Your task to perform on an android device: change timer sound Image 0: 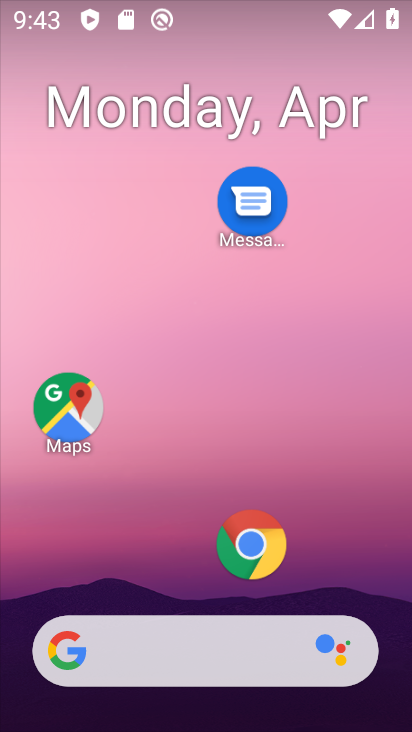
Step 0: drag from (199, 578) to (220, 29)
Your task to perform on an android device: change timer sound Image 1: 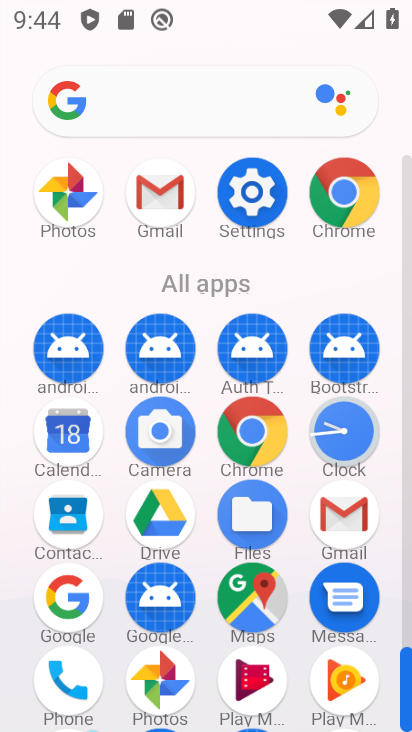
Step 1: click (340, 427)
Your task to perform on an android device: change timer sound Image 2: 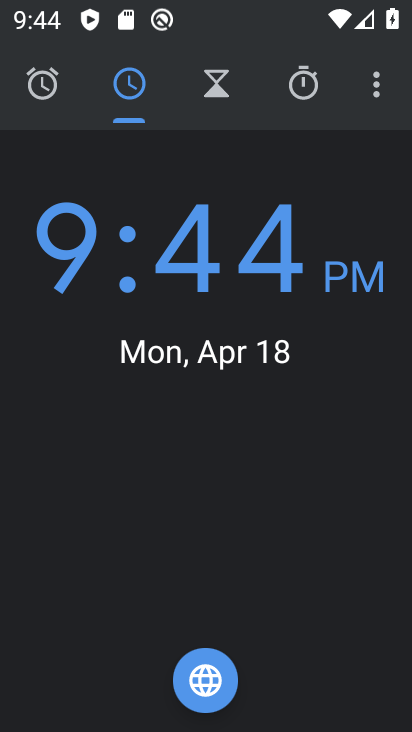
Step 2: click (372, 83)
Your task to perform on an android device: change timer sound Image 3: 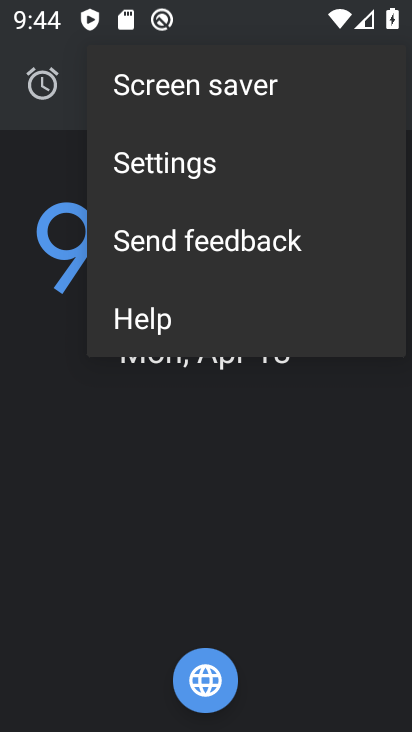
Step 3: click (193, 158)
Your task to perform on an android device: change timer sound Image 4: 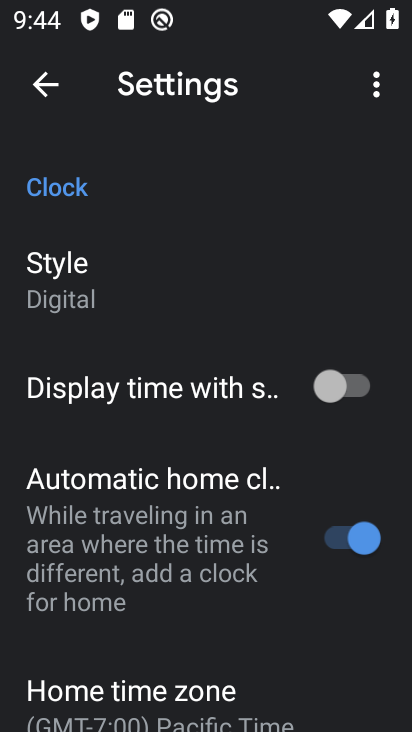
Step 4: drag from (190, 648) to (191, 154)
Your task to perform on an android device: change timer sound Image 5: 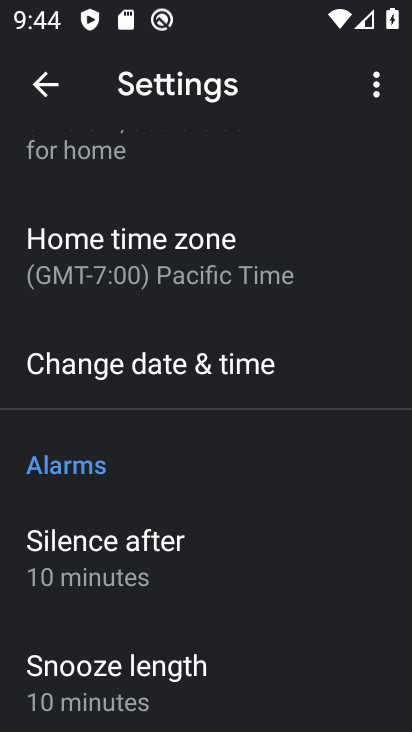
Step 5: drag from (179, 625) to (213, 110)
Your task to perform on an android device: change timer sound Image 6: 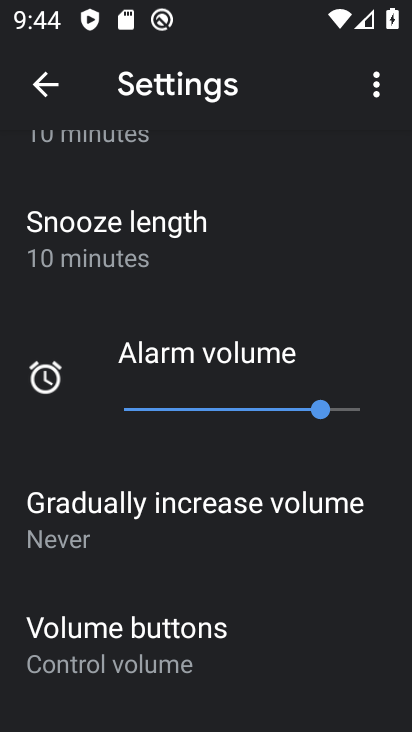
Step 6: drag from (212, 670) to (216, 200)
Your task to perform on an android device: change timer sound Image 7: 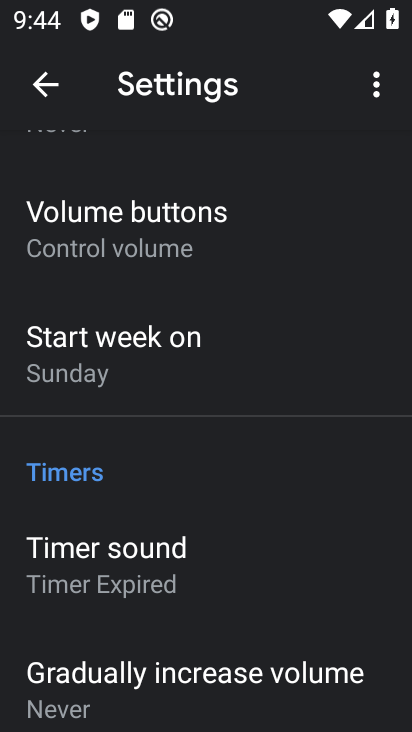
Step 7: click (204, 570)
Your task to perform on an android device: change timer sound Image 8: 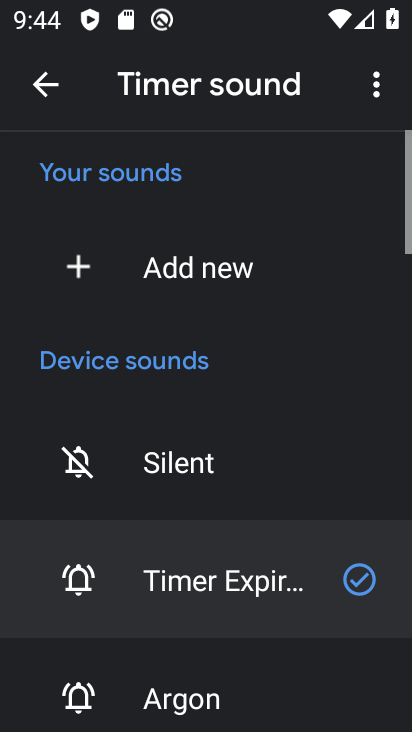
Step 8: drag from (192, 626) to (183, 138)
Your task to perform on an android device: change timer sound Image 9: 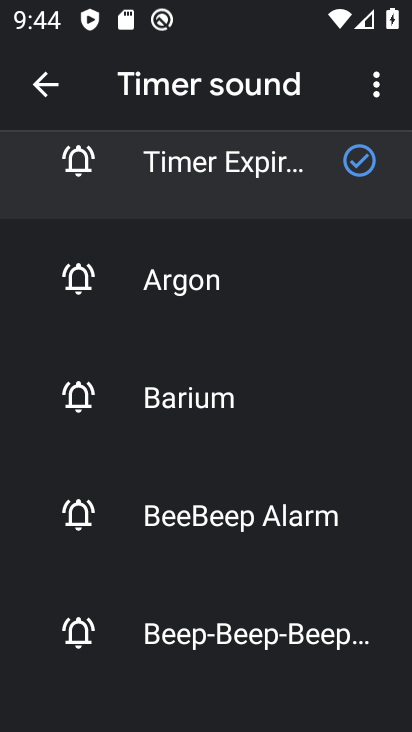
Step 9: click (208, 628)
Your task to perform on an android device: change timer sound Image 10: 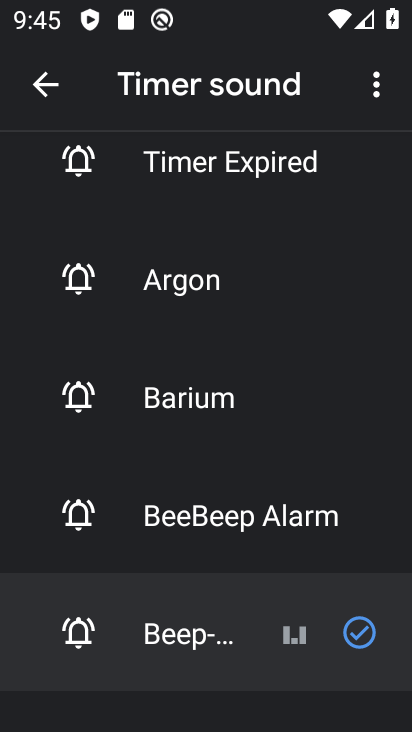
Step 10: task complete